Your task to perform on an android device: manage bookmarks in the chrome app Image 0: 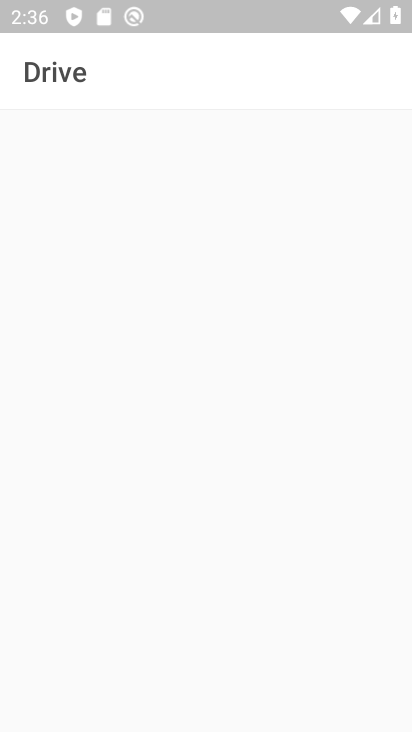
Step 0: press home button
Your task to perform on an android device: manage bookmarks in the chrome app Image 1: 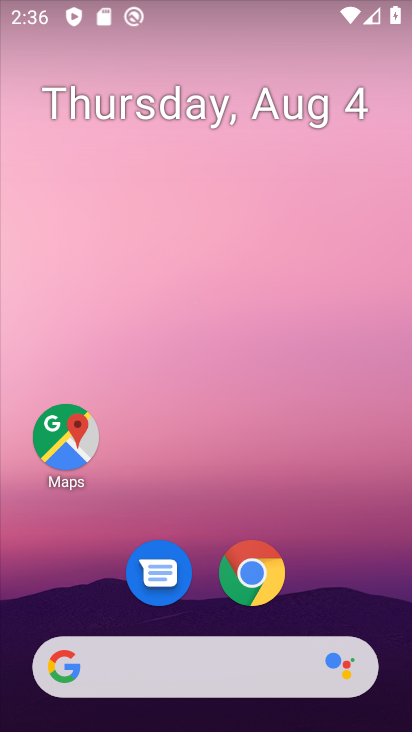
Step 1: click (251, 567)
Your task to perform on an android device: manage bookmarks in the chrome app Image 2: 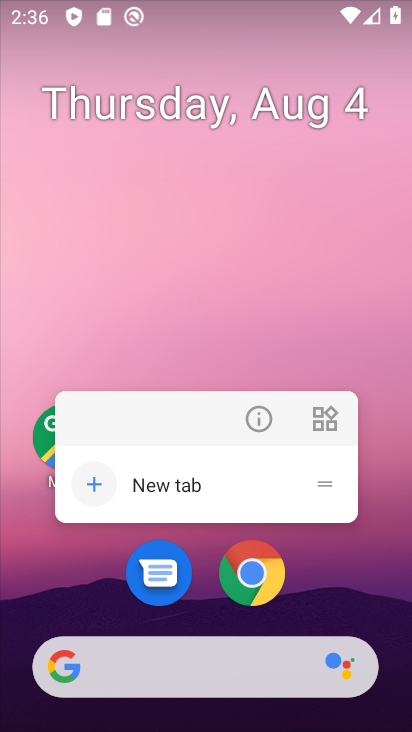
Step 2: click (252, 578)
Your task to perform on an android device: manage bookmarks in the chrome app Image 3: 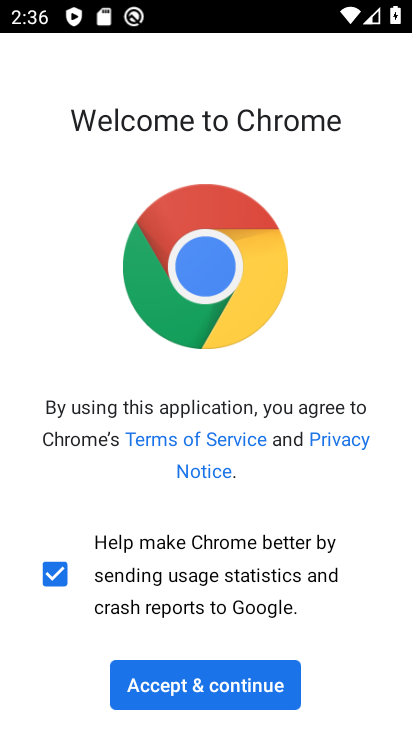
Step 3: click (177, 690)
Your task to perform on an android device: manage bookmarks in the chrome app Image 4: 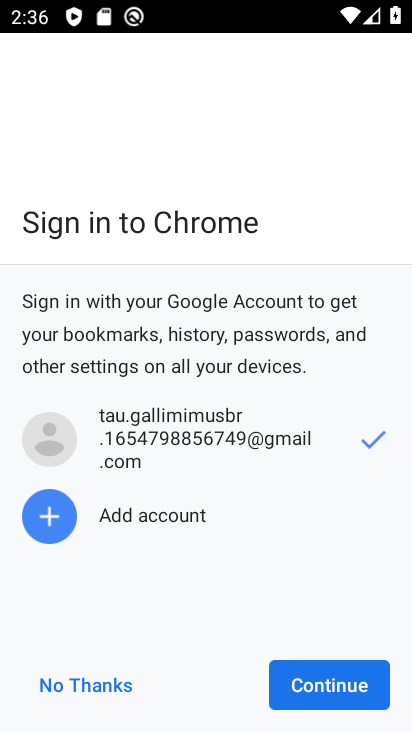
Step 4: click (295, 688)
Your task to perform on an android device: manage bookmarks in the chrome app Image 5: 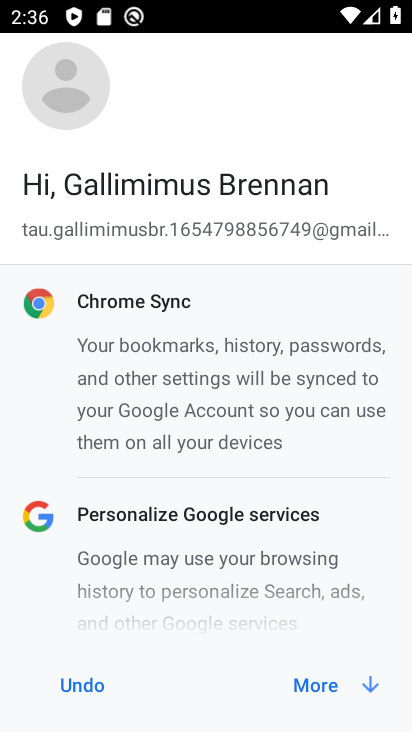
Step 5: click (366, 688)
Your task to perform on an android device: manage bookmarks in the chrome app Image 6: 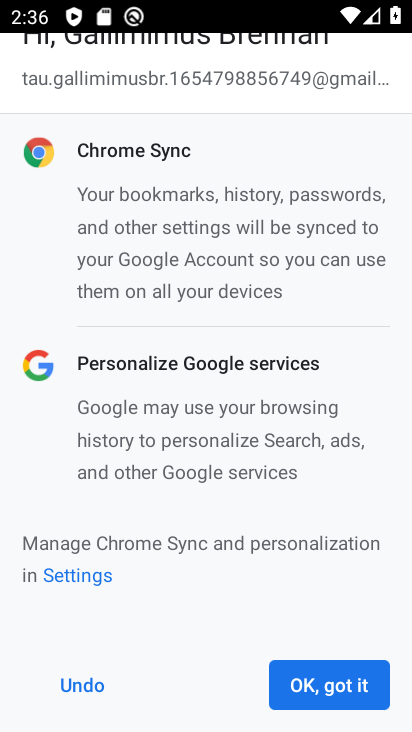
Step 6: click (333, 682)
Your task to perform on an android device: manage bookmarks in the chrome app Image 7: 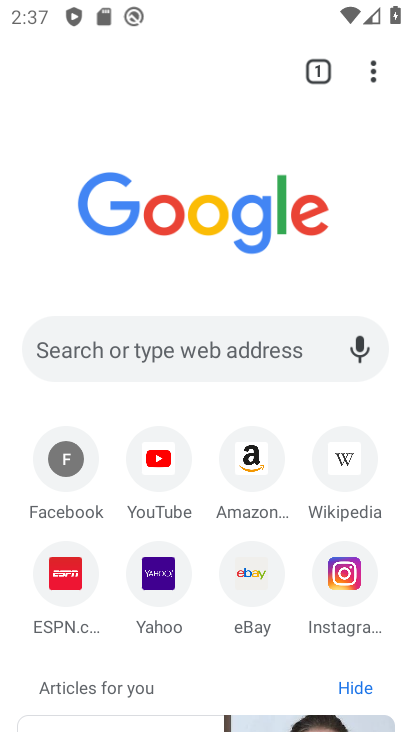
Step 7: click (374, 59)
Your task to perform on an android device: manage bookmarks in the chrome app Image 8: 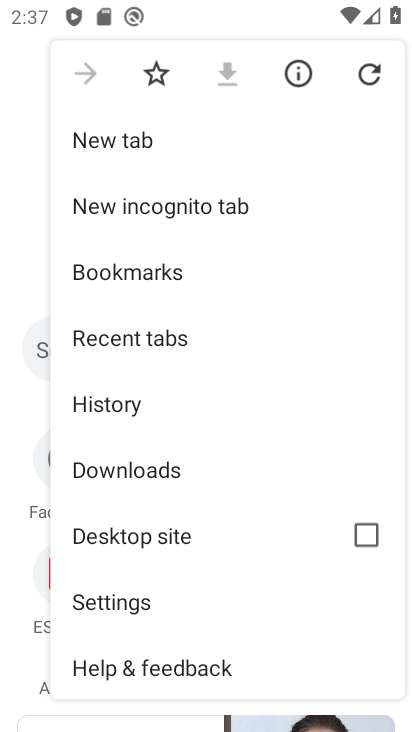
Step 8: click (154, 263)
Your task to perform on an android device: manage bookmarks in the chrome app Image 9: 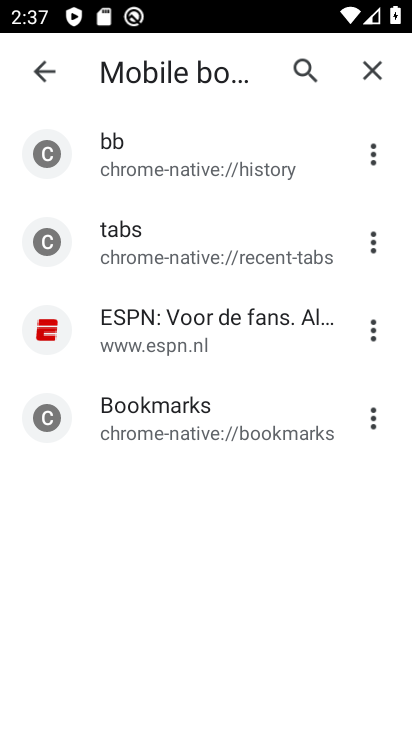
Step 9: click (367, 148)
Your task to perform on an android device: manage bookmarks in the chrome app Image 10: 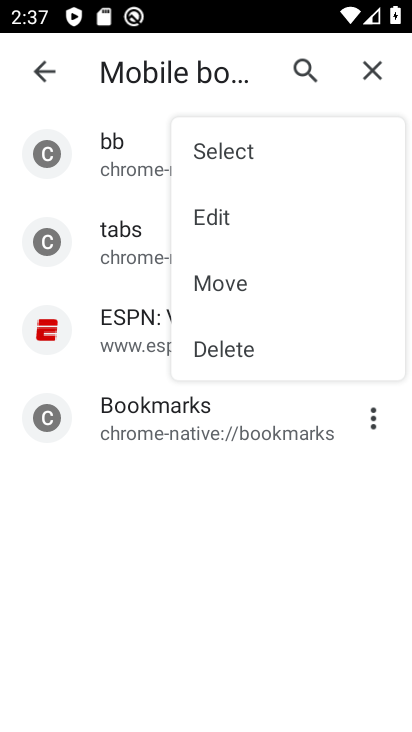
Step 10: click (218, 213)
Your task to perform on an android device: manage bookmarks in the chrome app Image 11: 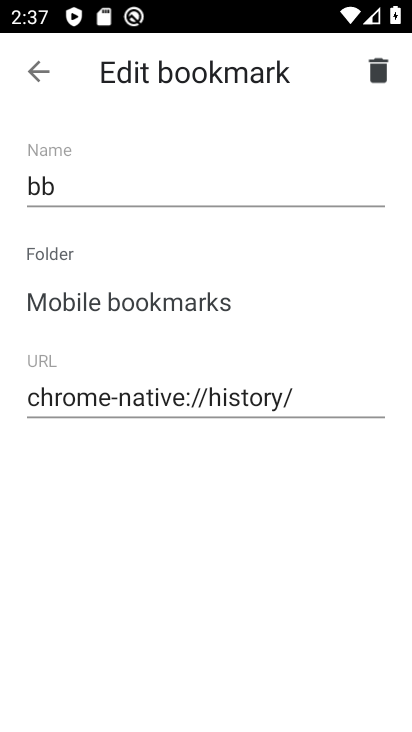
Step 11: task complete